Your task to perform on an android device: search for starred emails in the gmail app Image 0: 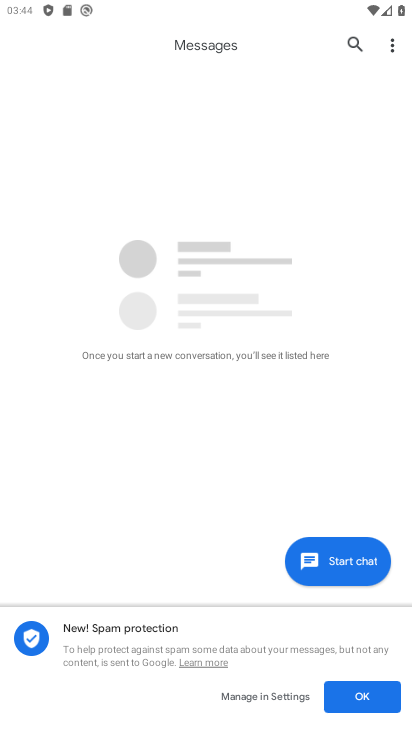
Step 0: press home button
Your task to perform on an android device: search for starred emails in the gmail app Image 1: 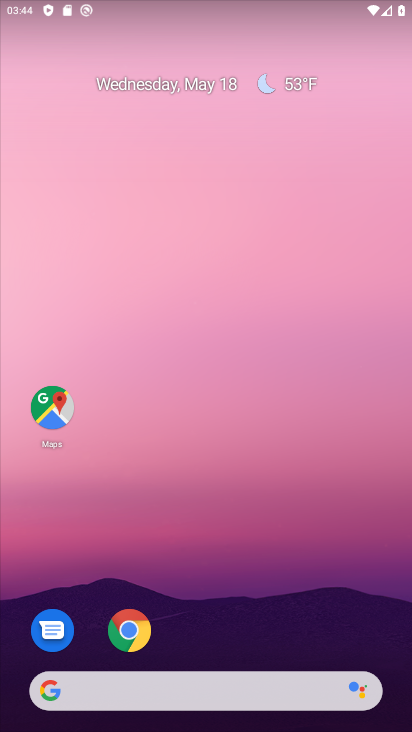
Step 1: drag from (220, 716) to (229, 268)
Your task to perform on an android device: search for starred emails in the gmail app Image 2: 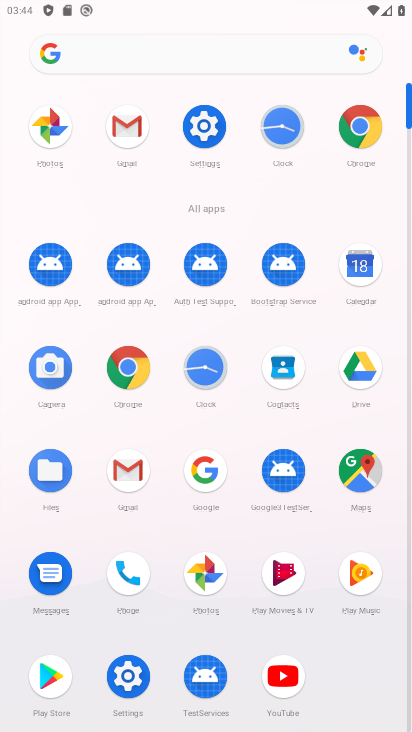
Step 2: click (134, 468)
Your task to perform on an android device: search for starred emails in the gmail app Image 3: 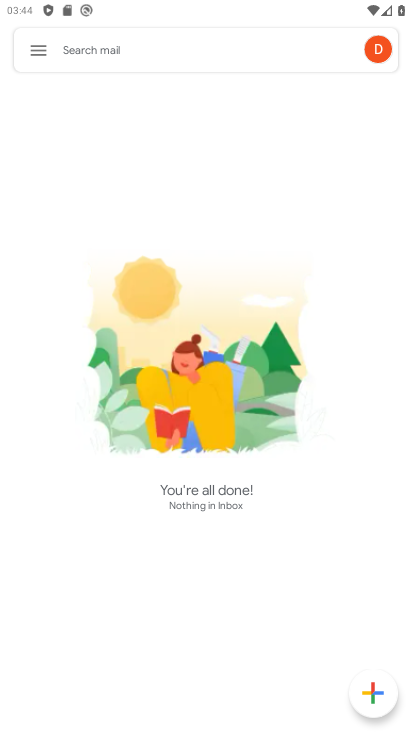
Step 3: click (39, 53)
Your task to perform on an android device: search for starred emails in the gmail app Image 4: 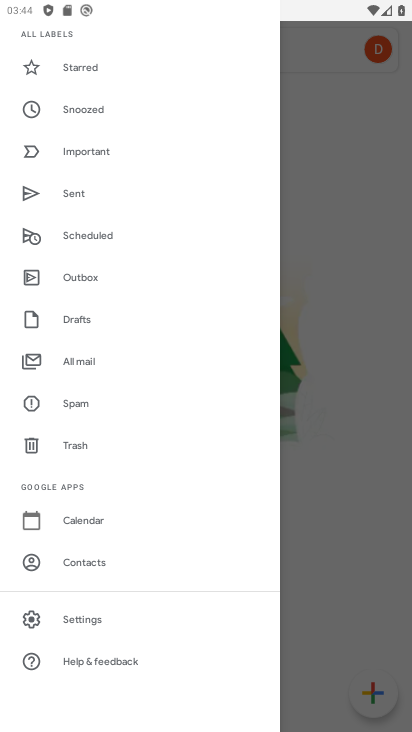
Step 4: click (74, 70)
Your task to perform on an android device: search for starred emails in the gmail app Image 5: 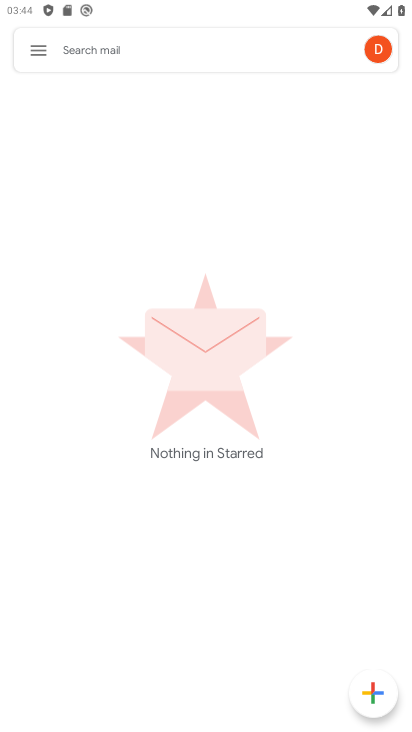
Step 5: task complete